Your task to perform on an android device: find photos in the google photos app Image 0: 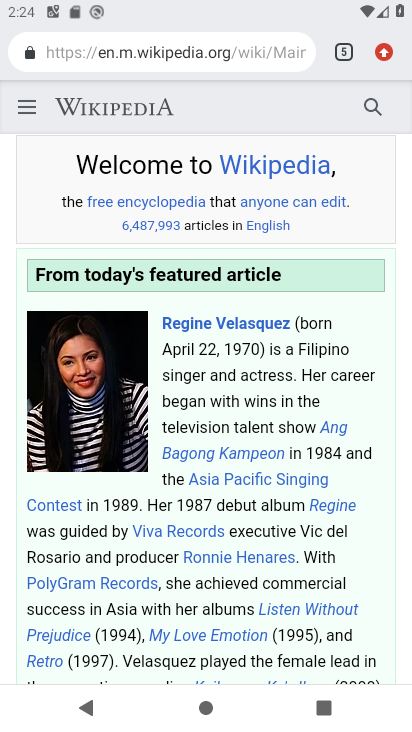
Step 0: press home button
Your task to perform on an android device: find photos in the google photos app Image 1: 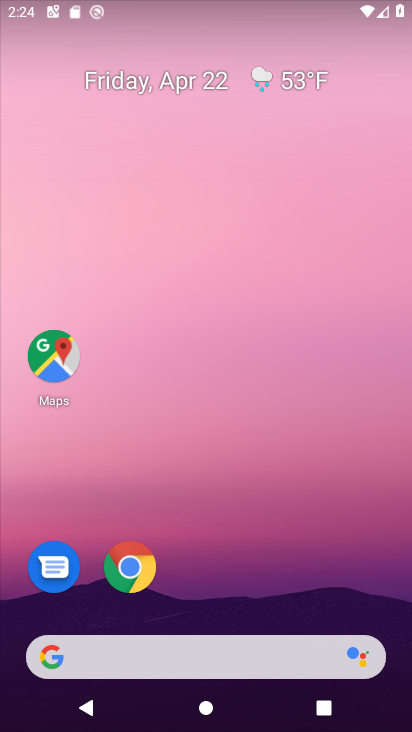
Step 1: drag from (274, 485) to (270, 102)
Your task to perform on an android device: find photos in the google photos app Image 2: 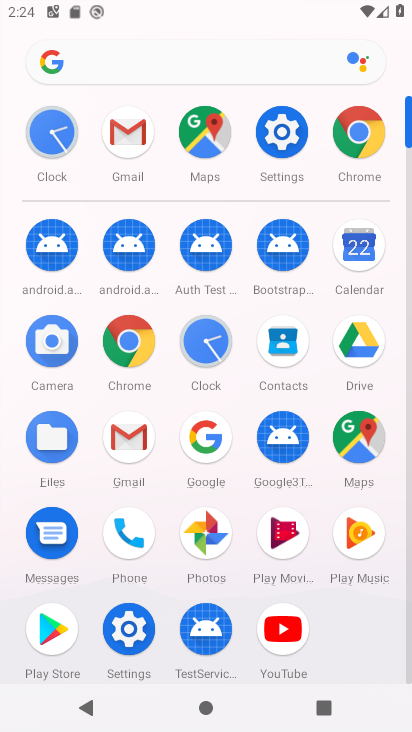
Step 2: click (202, 533)
Your task to perform on an android device: find photos in the google photos app Image 3: 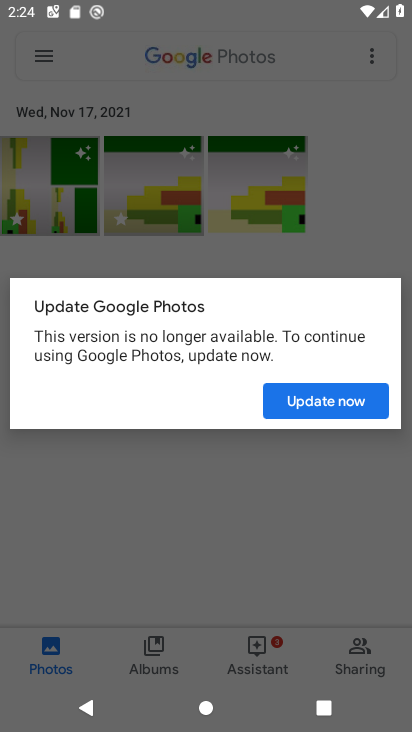
Step 3: click (319, 396)
Your task to perform on an android device: find photos in the google photos app Image 4: 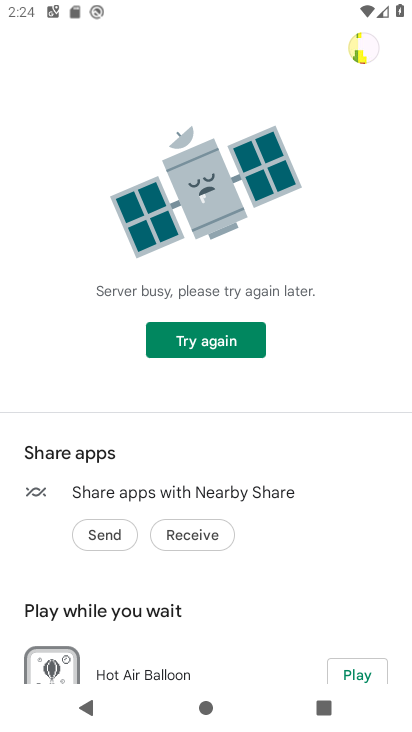
Step 4: press back button
Your task to perform on an android device: find photos in the google photos app Image 5: 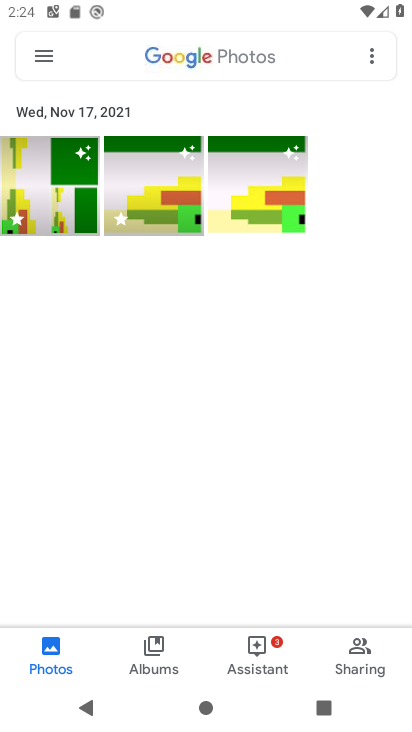
Step 5: click (80, 174)
Your task to perform on an android device: find photos in the google photos app Image 6: 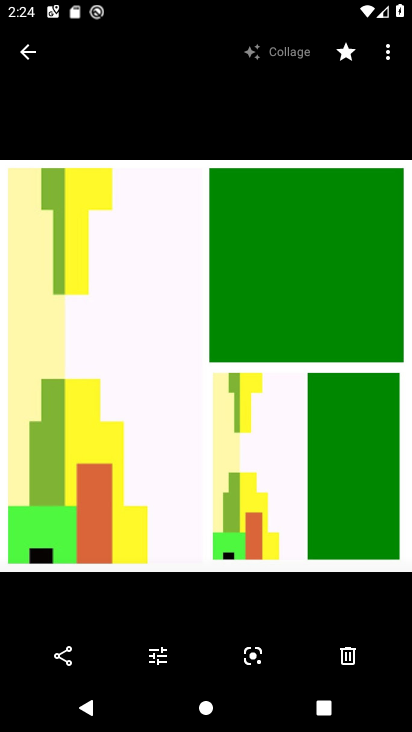
Step 6: task complete